Your task to perform on an android device: toggle airplane mode Image 0: 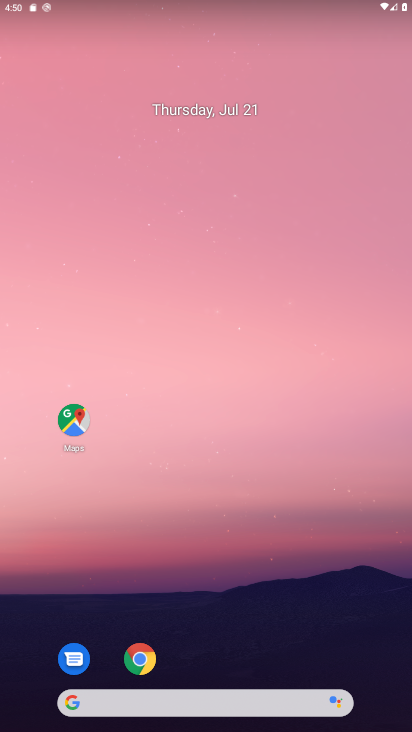
Step 0: drag from (362, 672) to (320, 172)
Your task to perform on an android device: toggle airplane mode Image 1: 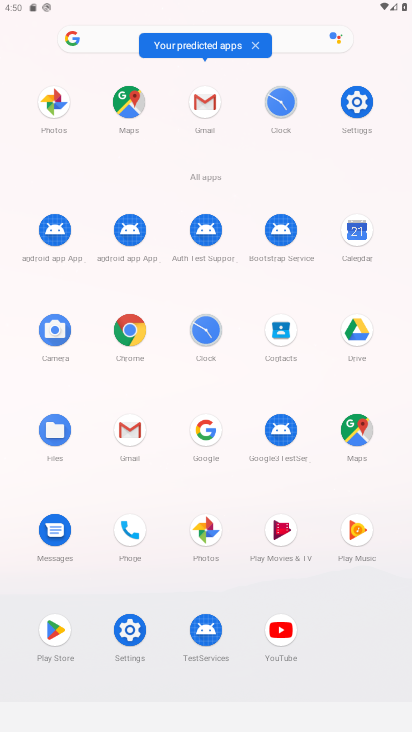
Step 1: click (127, 629)
Your task to perform on an android device: toggle airplane mode Image 2: 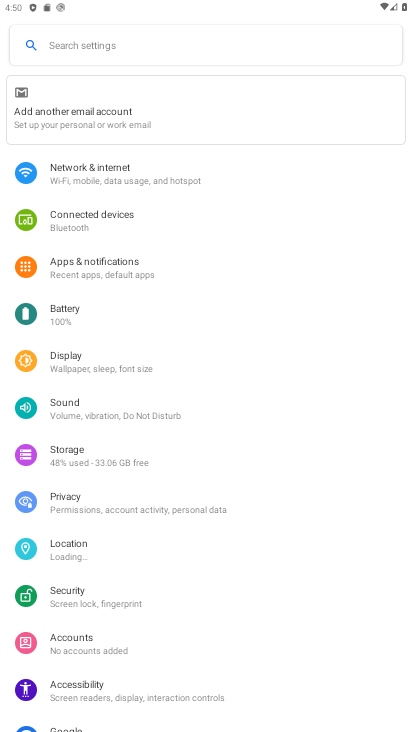
Step 2: click (89, 170)
Your task to perform on an android device: toggle airplane mode Image 3: 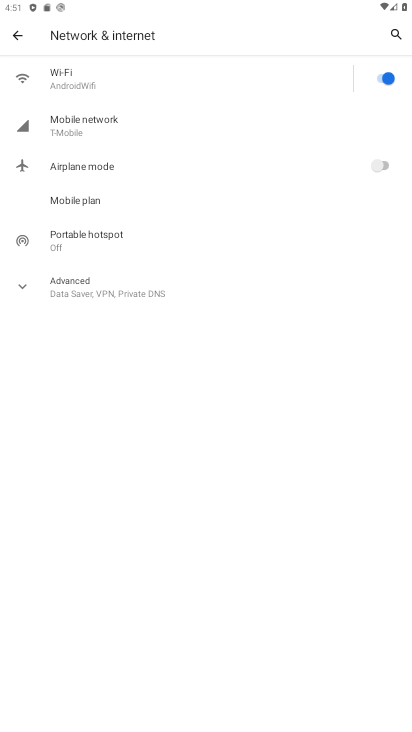
Step 3: click (383, 161)
Your task to perform on an android device: toggle airplane mode Image 4: 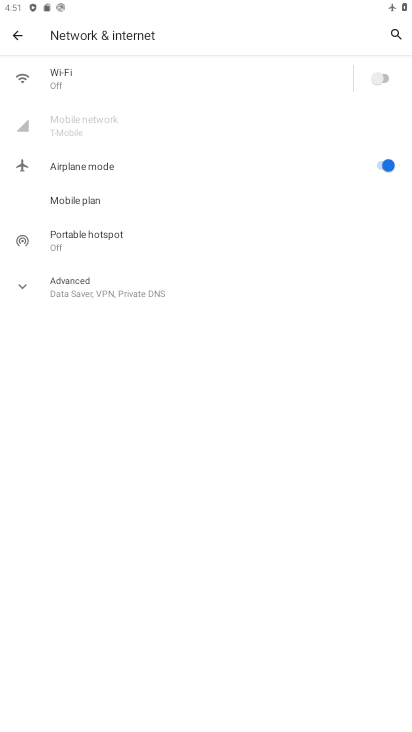
Step 4: task complete